Your task to perform on an android device: delete location history Image 0: 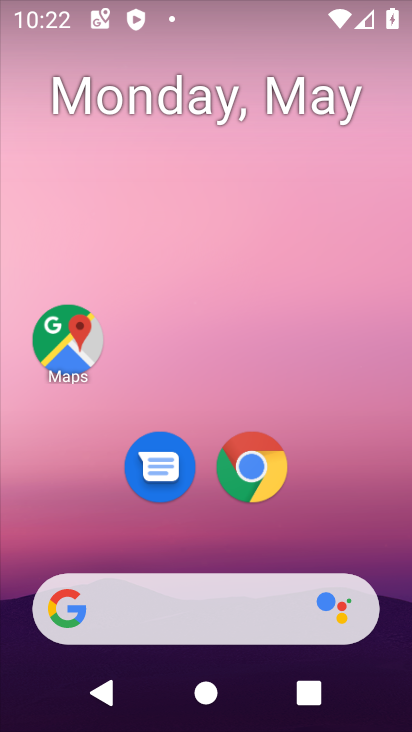
Step 0: drag from (377, 600) to (346, 166)
Your task to perform on an android device: delete location history Image 1: 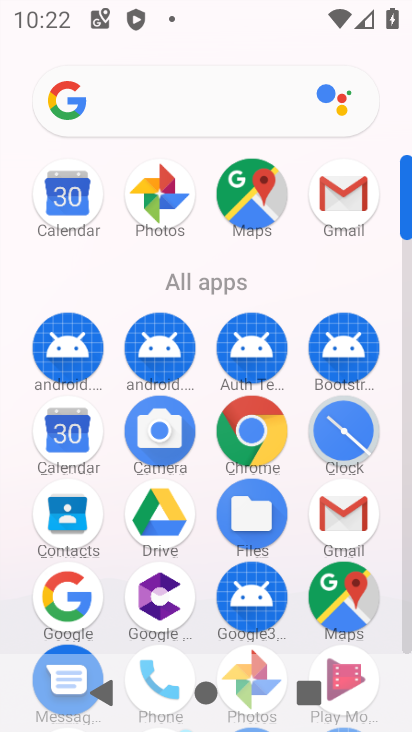
Step 1: drag from (199, 628) to (192, 232)
Your task to perform on an android device: delete location history Image 2: 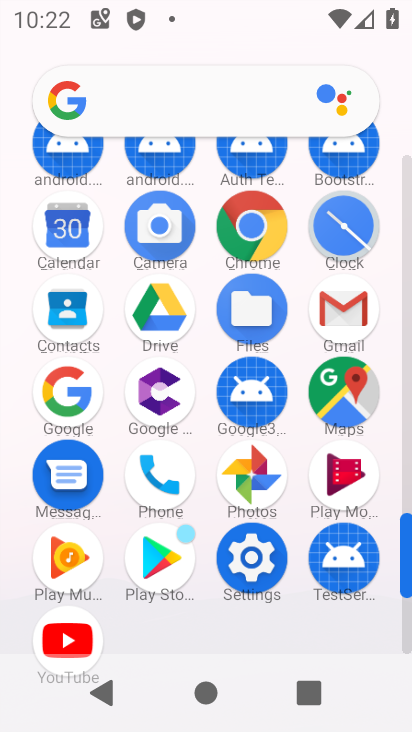
Step 2: click (241, 555)
Your task to perform on an android device: delete location history Image 3: 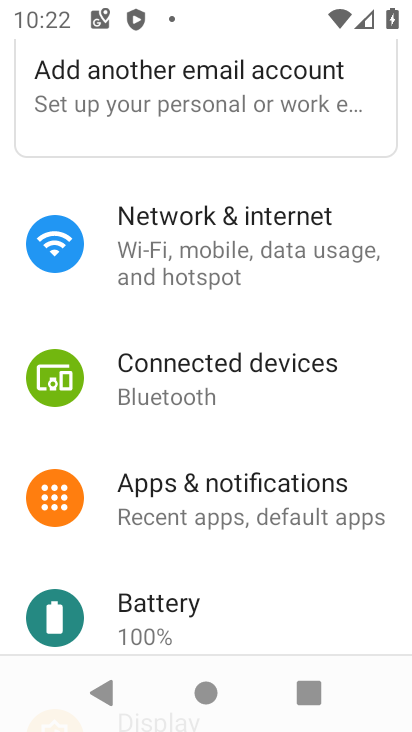
Step 3: drag from (231, 599) to (245, 368)
Your task to perform on an android device: delete location history Image 4: 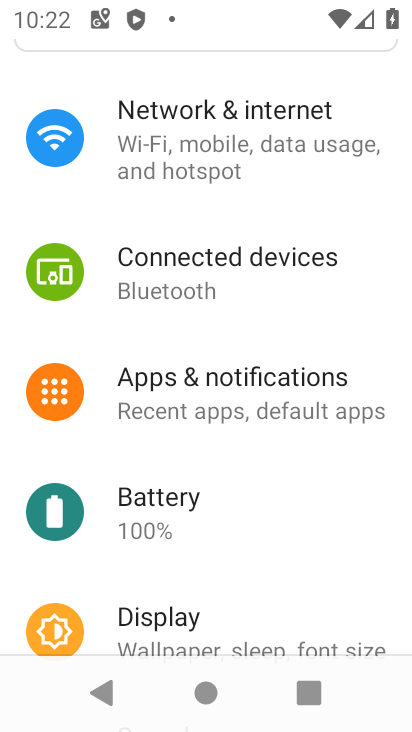
Step 4: drag from (247, 543) to (273, 237)
Your task to perform on an android device: delete location history Image 5: 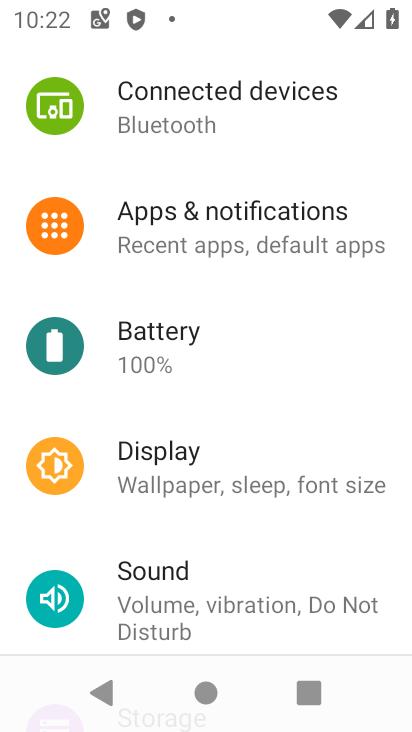
Step 5: drag from (235, 531) to (262, 232)
Your task to perform on an android device: delete location history Image 6: 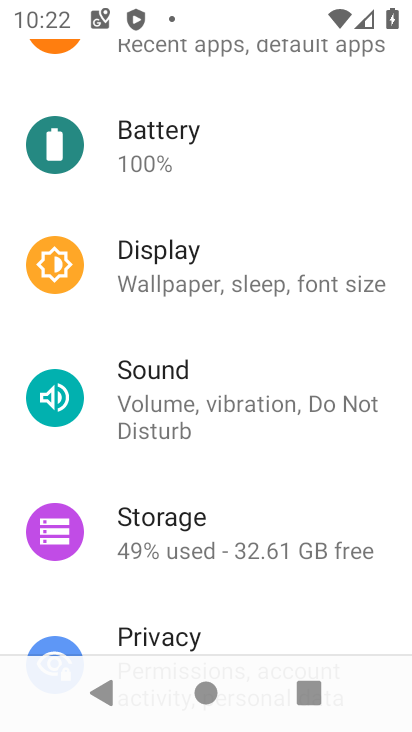
Step 6: drag from (228, 614) to (236, 310)
Your task to perform on an android device: delete location history Image 7: 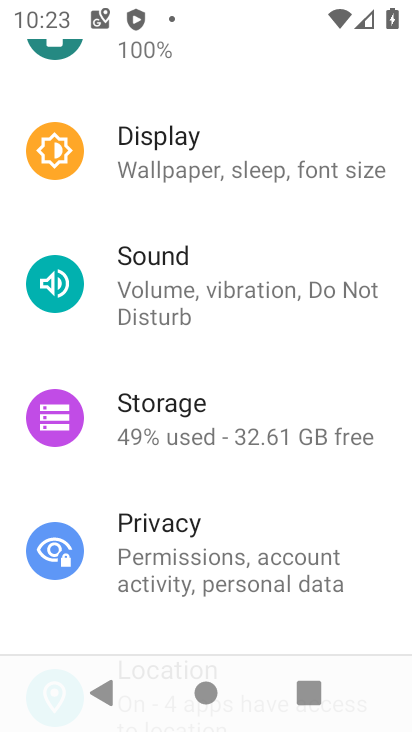
Step 7: drag from (246, 608) to (254, 337)
Your task to perform on an android device: delete location history Image 8: 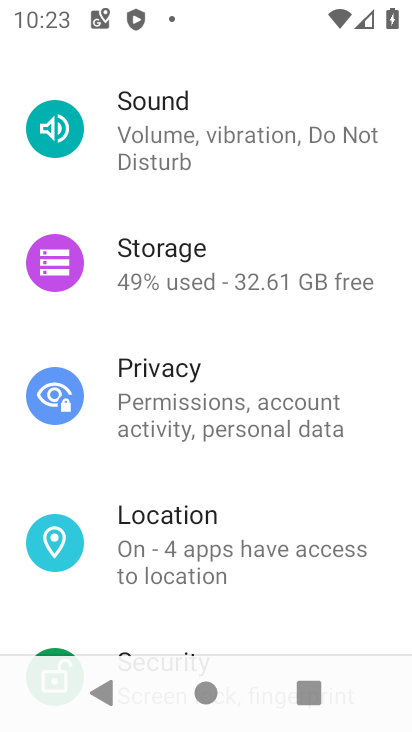
Step 8: click (172, 528)
Your task to perform on an android device: delete location history Image 9: 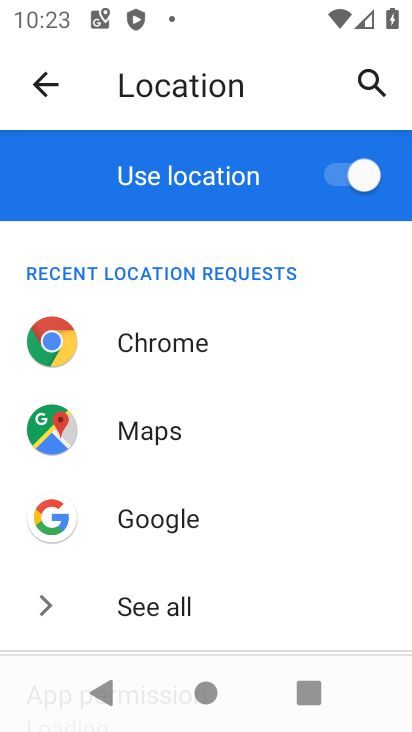
Step 9: press back button
Your task to perform on an android device: delete location history Image 10: 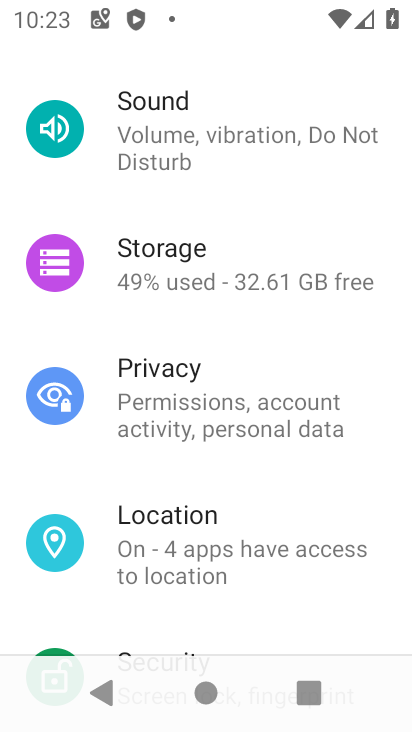
Step 10: press home button
Your task to perform on an android device: delete location history Image 11: 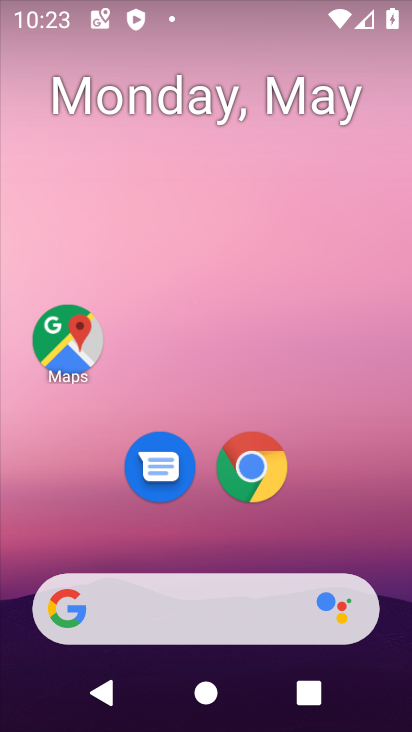
Step 11: click (49, 326)
Your task to perform on an android device: delete location history Image 12: 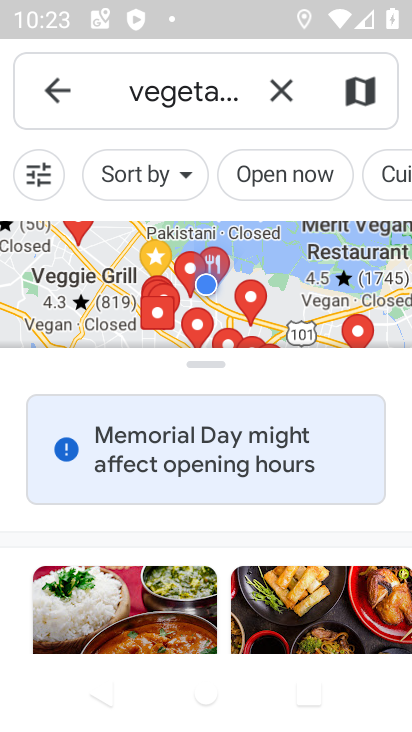
Step 12: click (48, 88)
Your task to perform on an android device: delete location history Image 13: 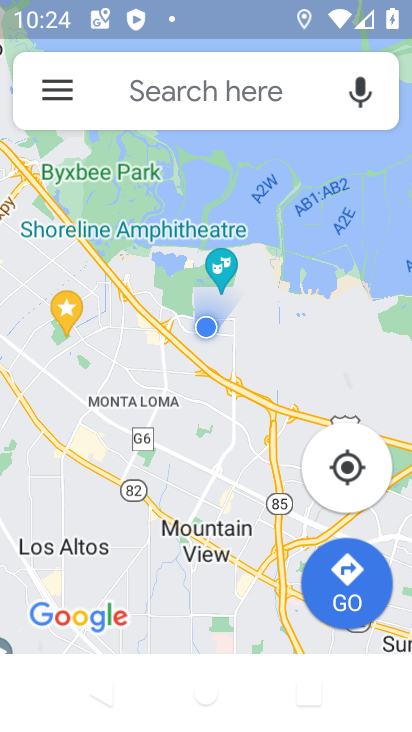
Step 13: click (62, 83)
Your task to perform on an android device: delete location history Image 14: 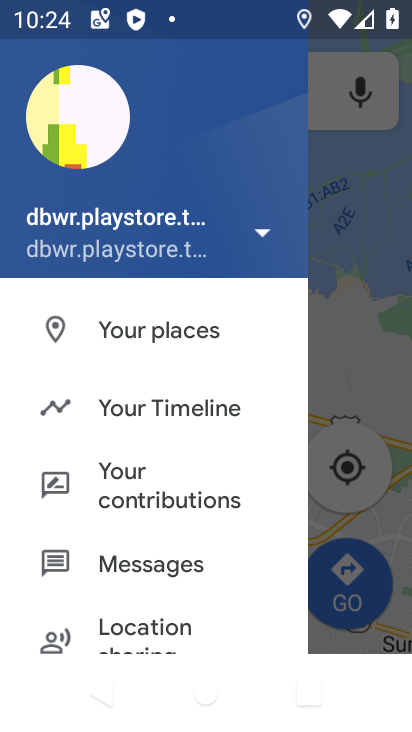
Step 14: drag from (221, 626) to (236, 329)
Your task to perform on an android device: delete location history Image 15: 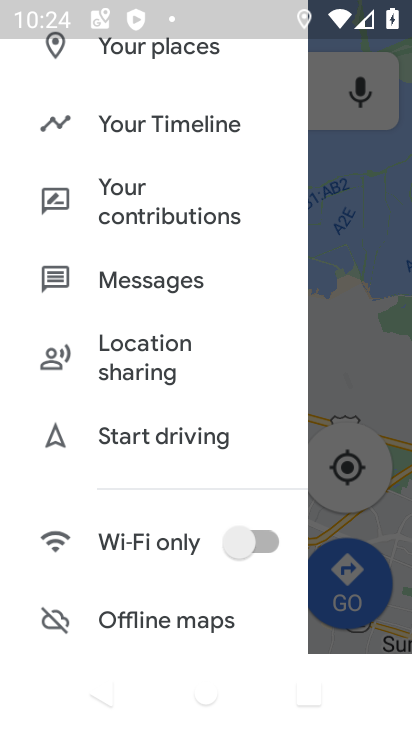
Step 15: click (162, 121)
Your task to perform on an android device: delete location history Image 16: 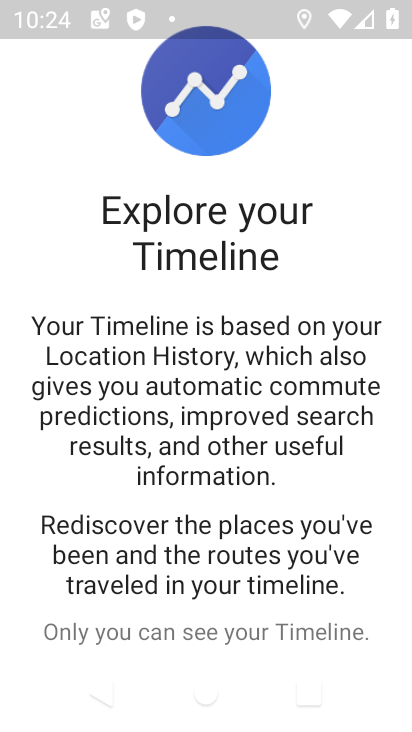
Step 16: drag from (242, 586) to (264, 307)
Your task to perform on an android device: delete location history Image 17: 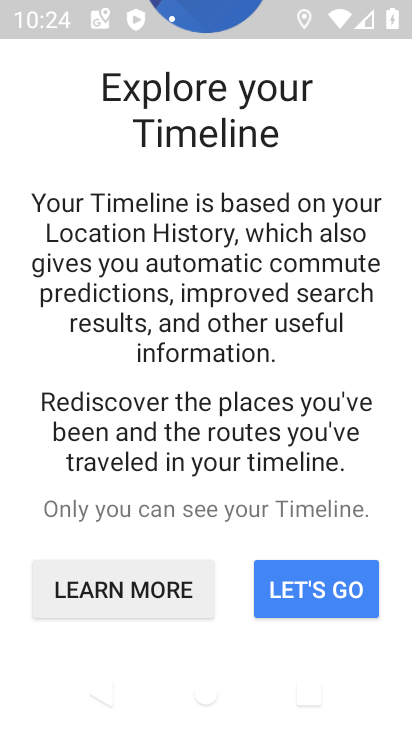
Step 17: click (287, 594)
Your task to perform on an android device: delete location history Image 18: 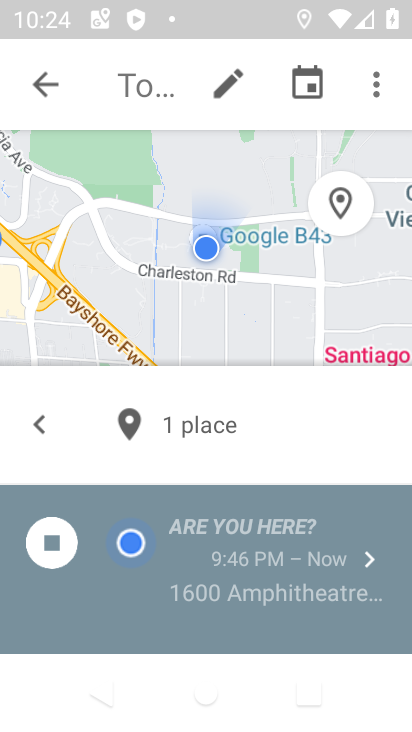
Step 18: click (374, 84)
Your task to perform on an android device: delete location history Image 19: 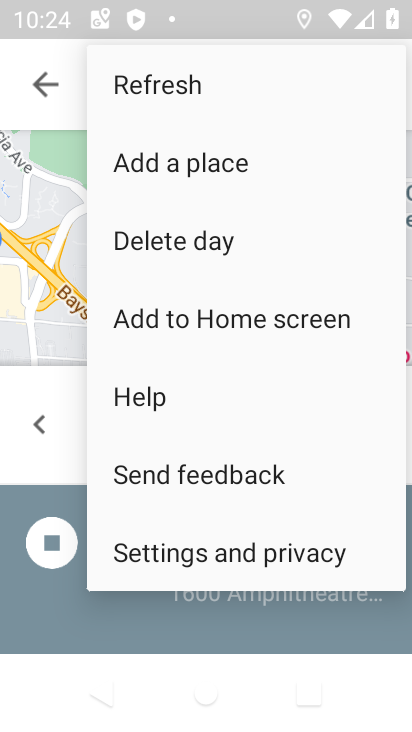
Step 19: drag from (340, 483) to (338, 193)
Your task to perform on an android device: delete location history Image 20: 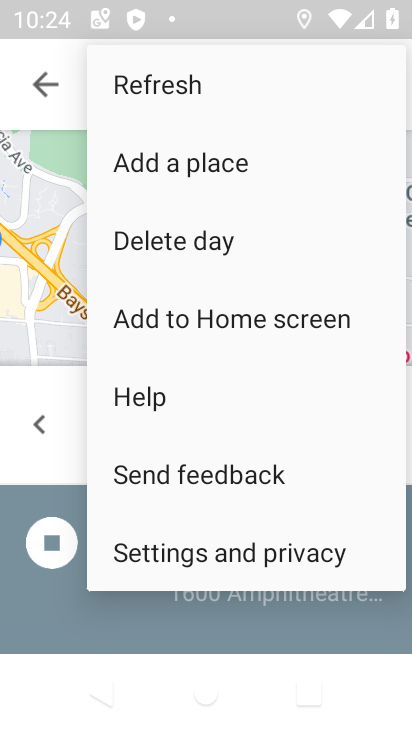
Step 20: click (219, 539)
Your task to perform on an android device: delete location history Image 21: 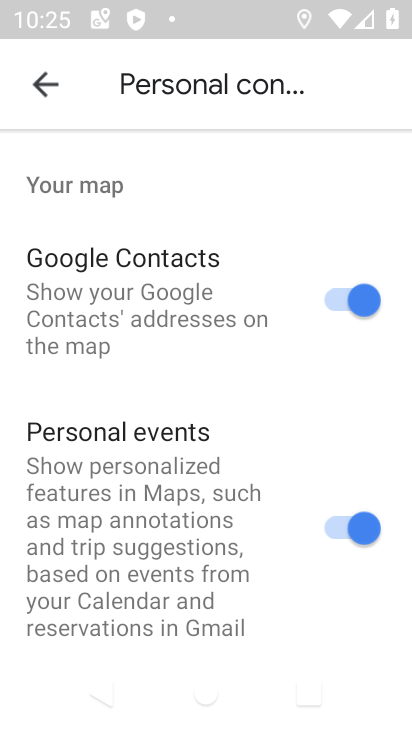
Step 21: drag from (269, 640) to (255, 272)
Your task to perform on an android device: delete location history Image 22: 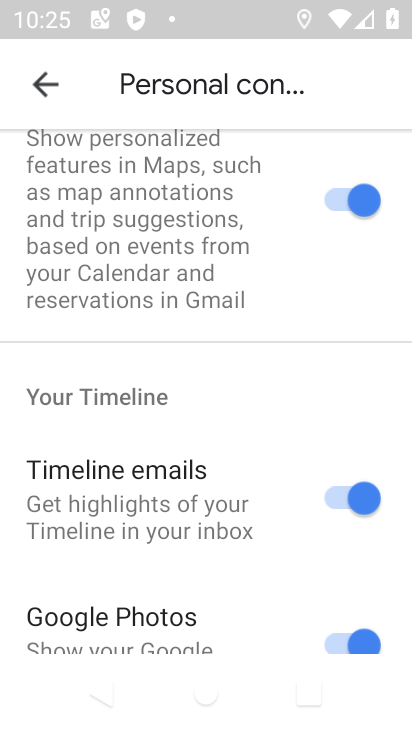
Step 22: drag from (202, 617) to (229, 249)
Your task to perform on an android device: delete location history Image 23: 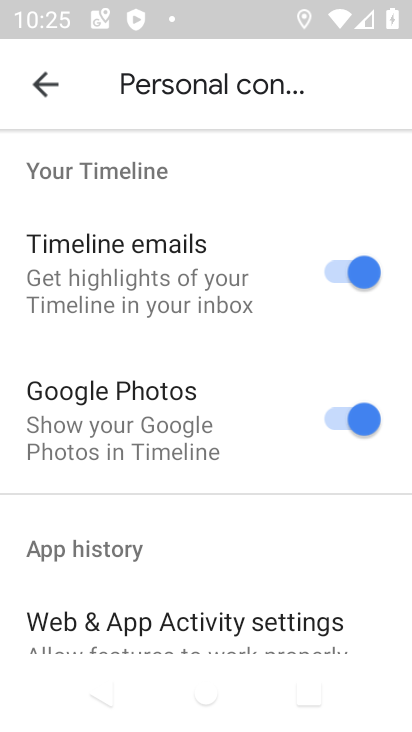
Step 23: drag from (215, 565) to (214, 345)
Your task to perform on an android device: delete location history Image 24: 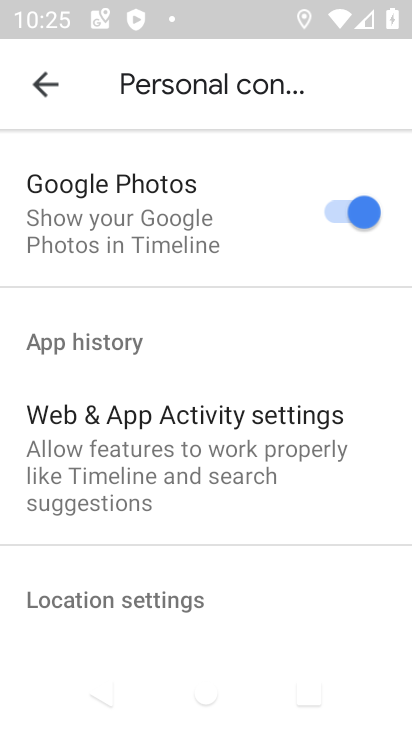
Step 24: drag from (218, 614) to (234, 308)
Your task to perform on an android device: delete location history Image 25: 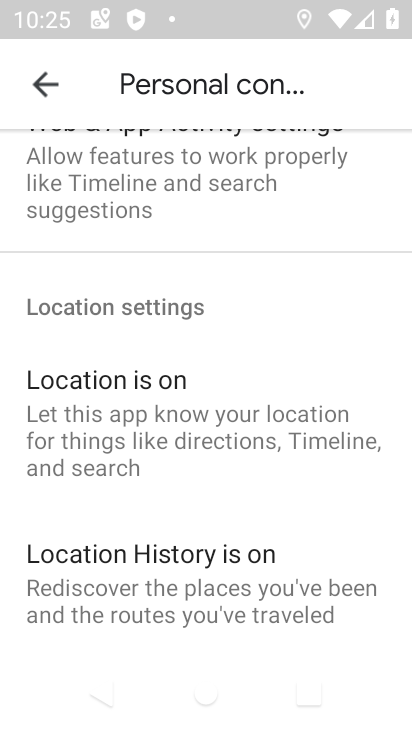
Step 25: click (211, 292)
Your task to perform on an android device: delete location history Image 26: 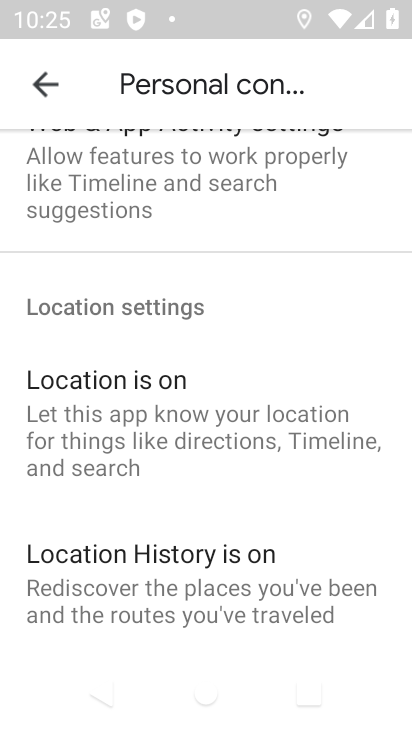
Step 26: drag from (205, 216) to (255, 574)
Your task to perform on an android device: delete location history Image 27: 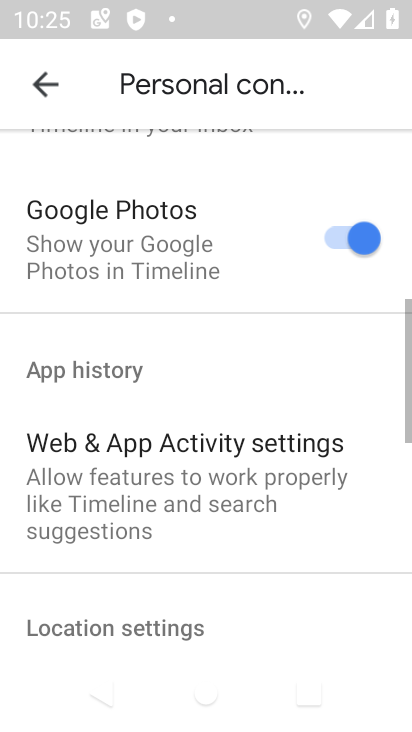
Step 27: drag from (211, 581) to (205, 248)
Your task to perform on an android device: delete location history Image 28: 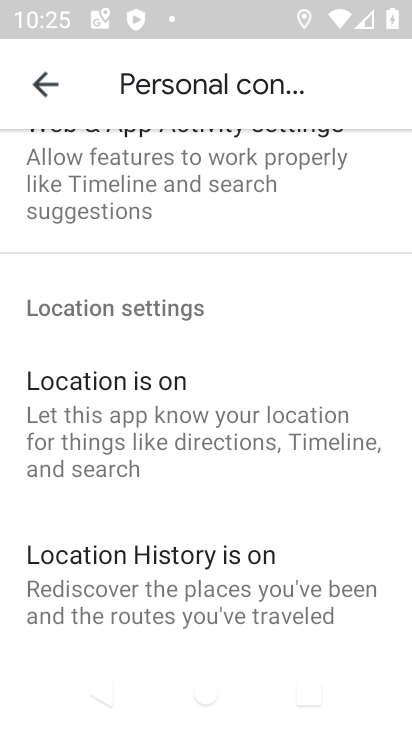
Step 28: drag from (187, 585) to (191, 323)
Your task to perform on an android device: delete location history Image 29: 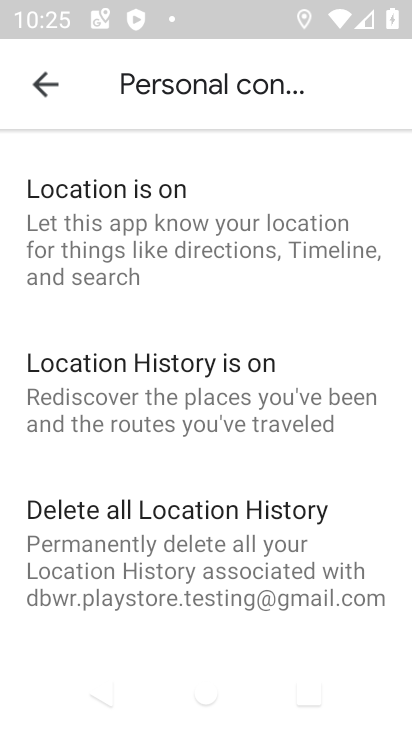
Step 29: click (132, 517)
Your task to perform on an android device: delete location history Image 30: 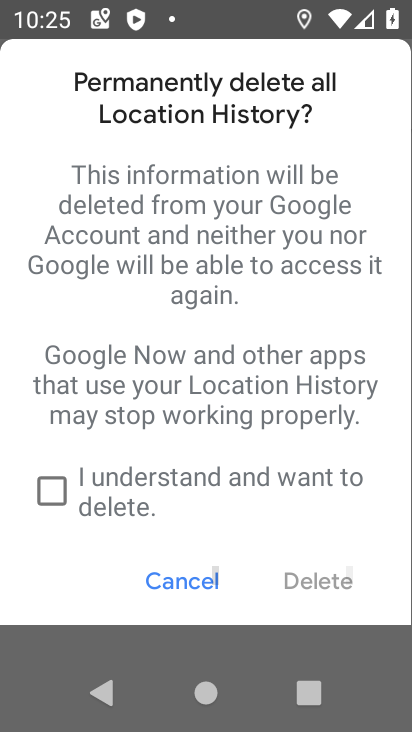
Step 30: click (55, 488)
Your task to perform on an android device: delete location history Image 31: 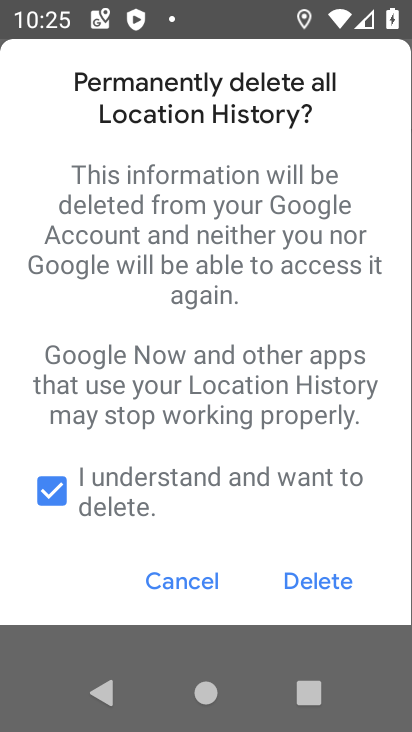
Step 31: click (330, 578)
Your task to perform on an android device: delete location history Image 32: 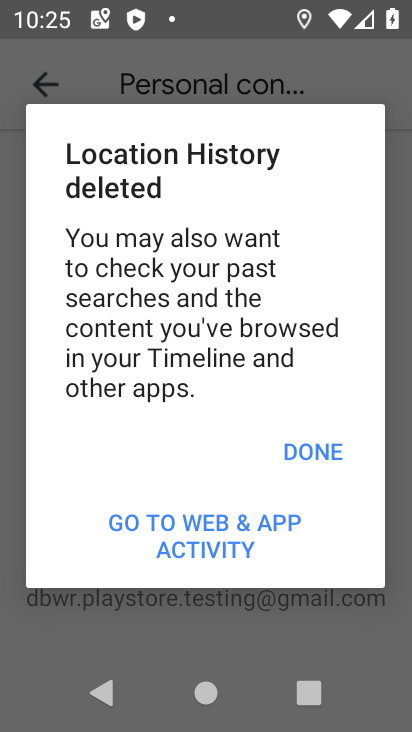
Step 32: click (311, 449)
Your task to perform on an android device: delete location history Image 33: 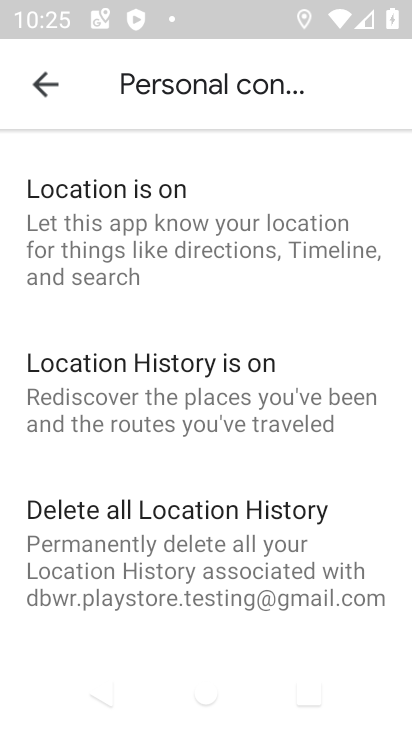
Step 33: task complete